Your task to perform on an android device: check android version Image 0: 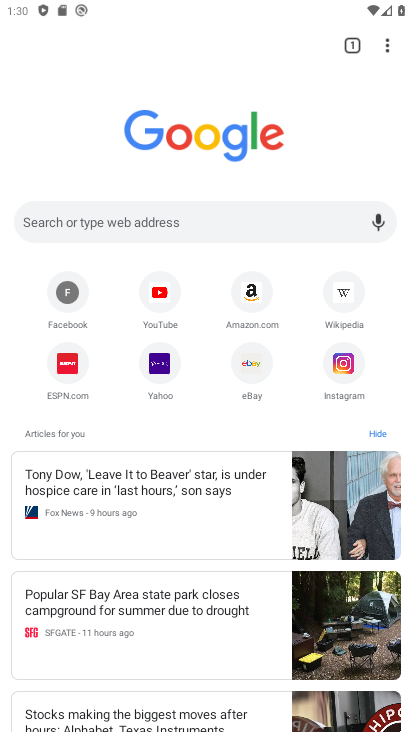
Step 0: press home button
Your task to perform on an android device: check android version Image 1: 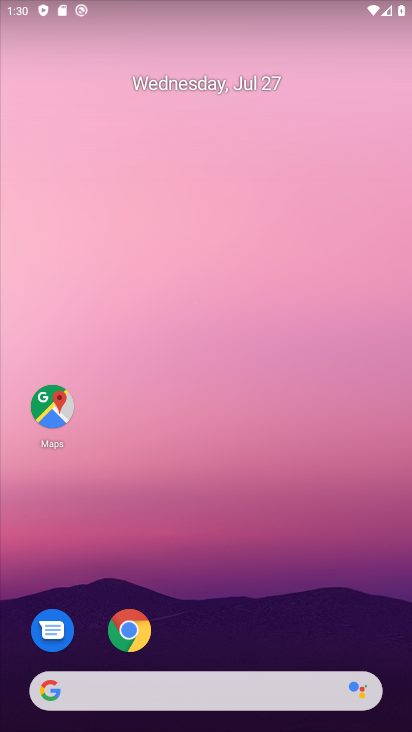
Step 1: drag from (379, 623) to (373, 155)
Your task to perform on an android device: check android version Image 2: 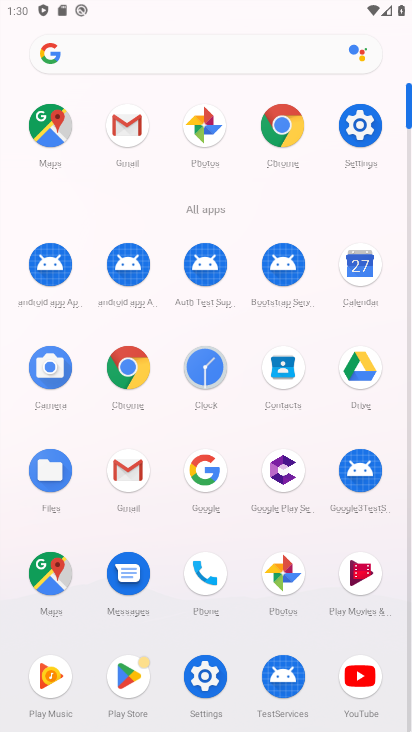
Step 2: click (205, 678)
Your task to perform on an android device: check android version Image 3: 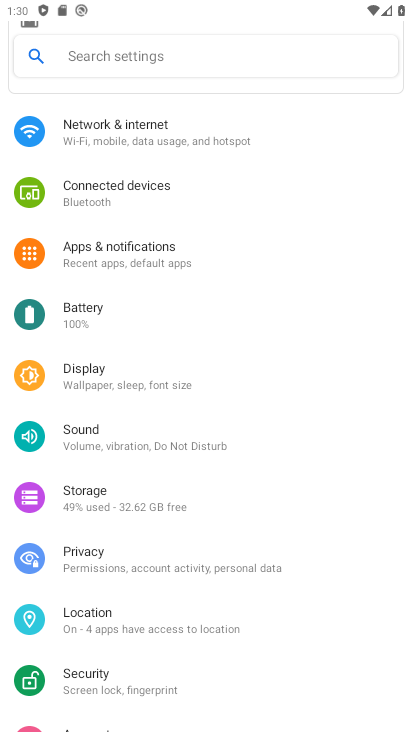
Step 3: drag from (319, 633) to (280, 225)
Your task to perform on an android device: check android version Image 4: 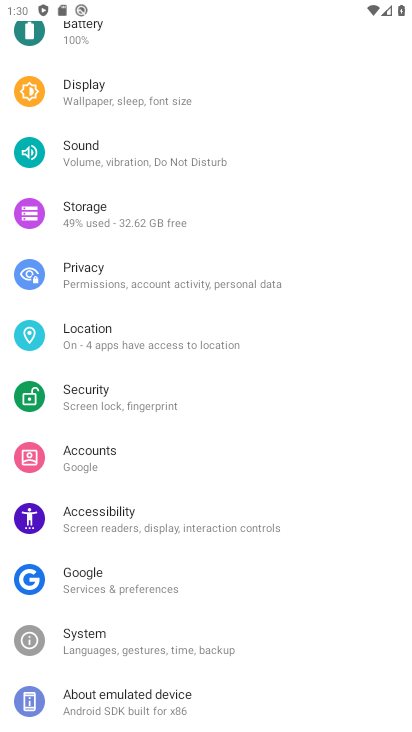
Step 4: drag from (298, 662) to (269, 306)
Your task to perform on an android device: check android version Image 5: 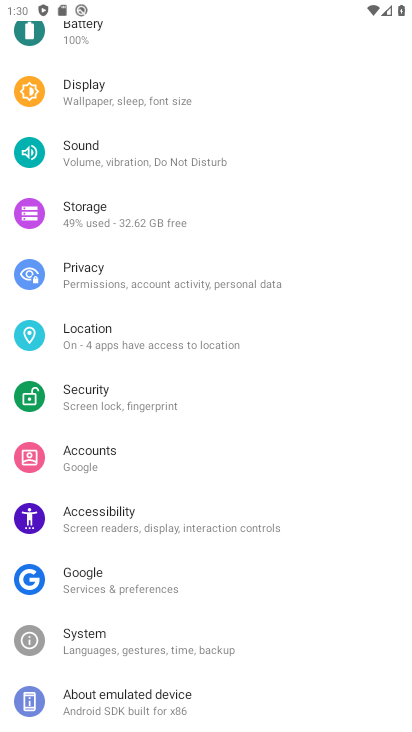
Step 5: click (105, 698)
Your task to perform on an android device: check android version Image 6: 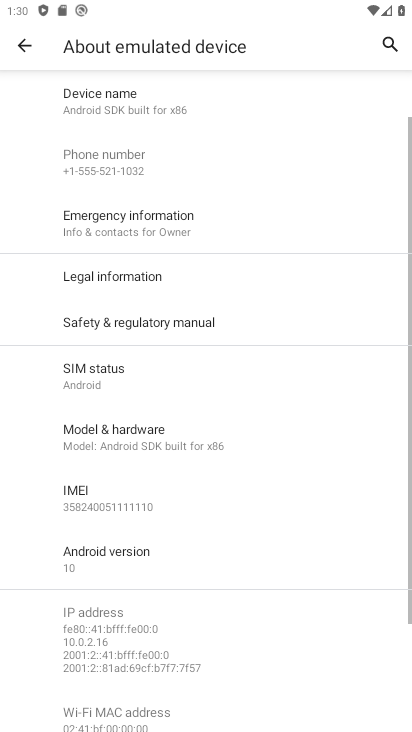
Step 6: task complete